Your task to perform on an android device: open sync settings in chrome Image 0: 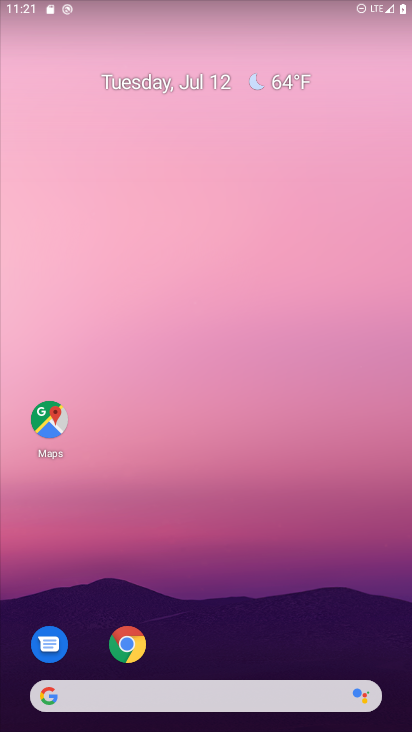
Step 0: click (120, 649)
Your task to perform on an android device: open sync settings in chrome Image 1: 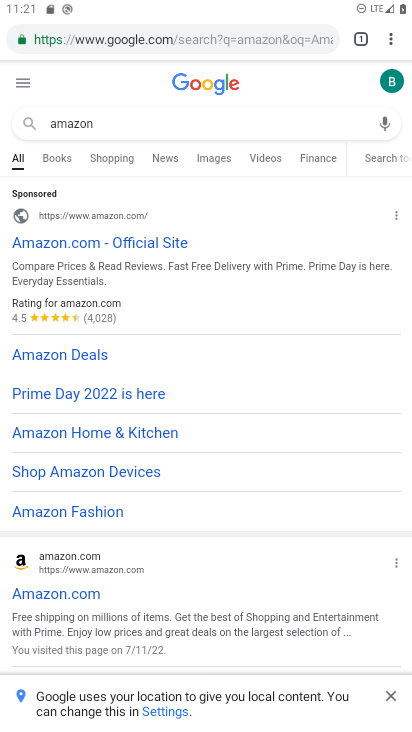
Step 1: click (397, 43)
Your task to perform on an android device: open sync settings in chrome Image 2: 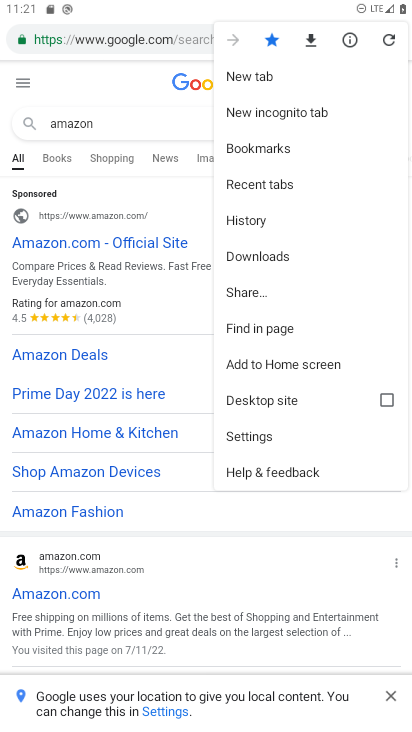
Step 2: click (270, 439)
Your task to perform on an android device: open sync settings in chrome Image 3: 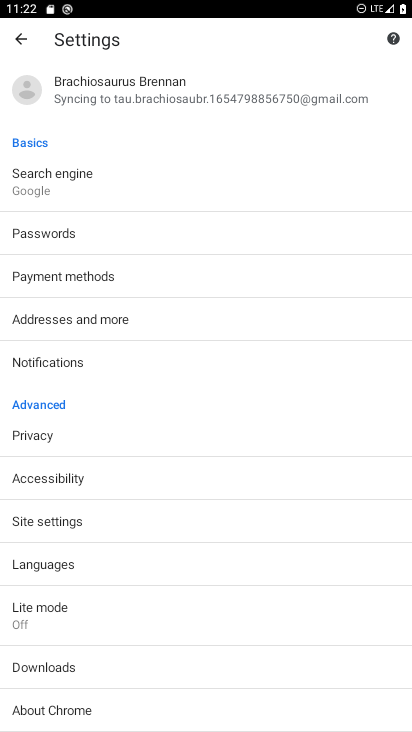
Step 3: click (232, 116)
Your task to perform on an android device: open sync settings in chrome Image 4: 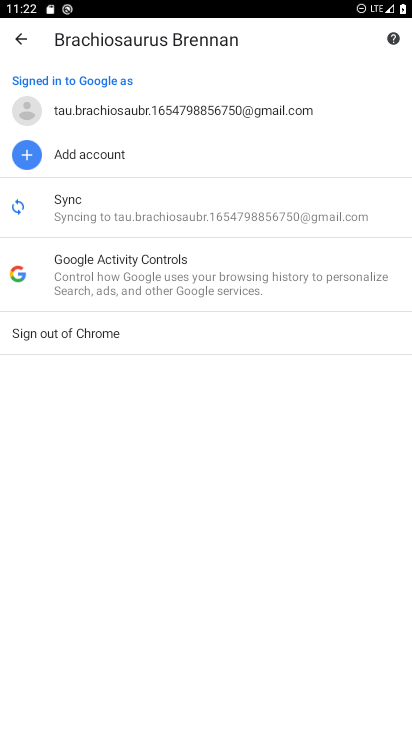
Step 4: click (204, 192)
Your task to perform on an android device: open sync settings in chrome Image 5: 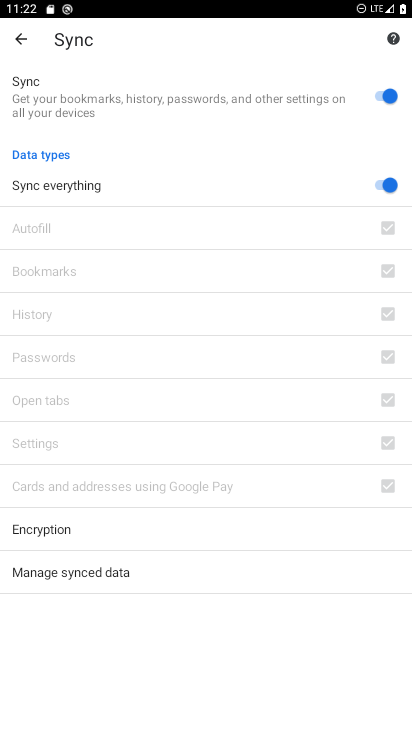
Step 5: task complete